Your task to perform on an android device: Play the last video I watched on Youtube Image 0: 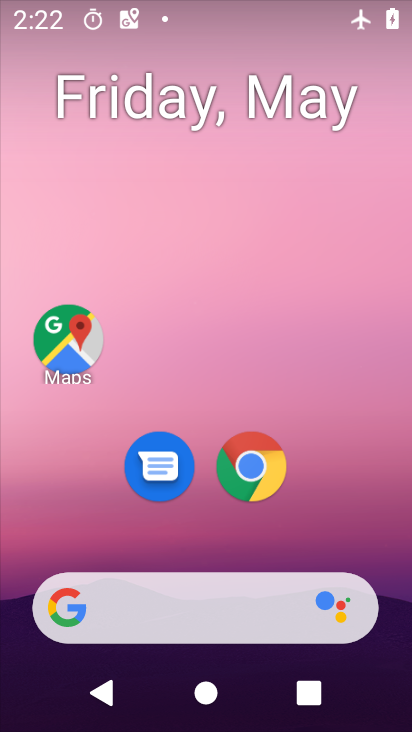
Step 0: drag from (330, 534) to (349, 58)
Your task to perform on an android device: Play the last video I watched on Youtube Image 1: 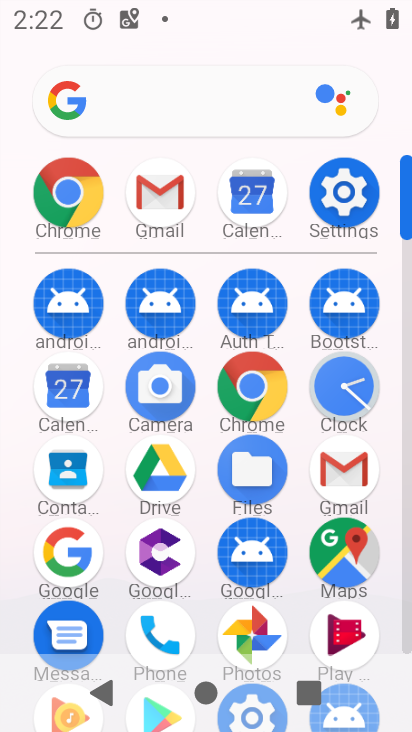
Step 1: drag from (377, 668) to (375, 230)
Your task to perform on an android device: Play the last video I watched on Youtube Image 2: 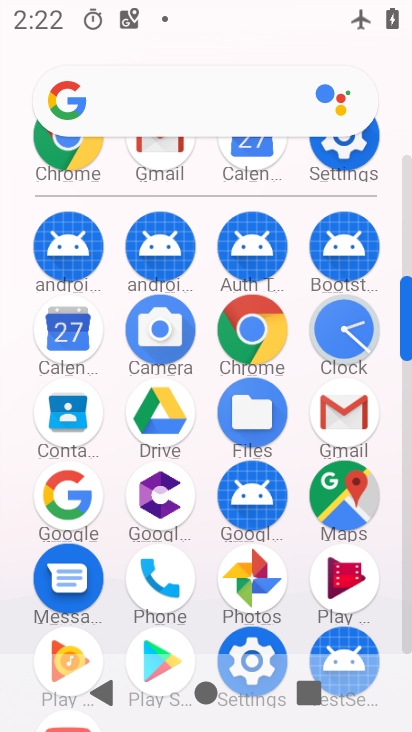
Step 2: drag from (392, 513) to (411, 136)
Your task to perform on an android device: Play the last video I watched on Youtube Image 3: 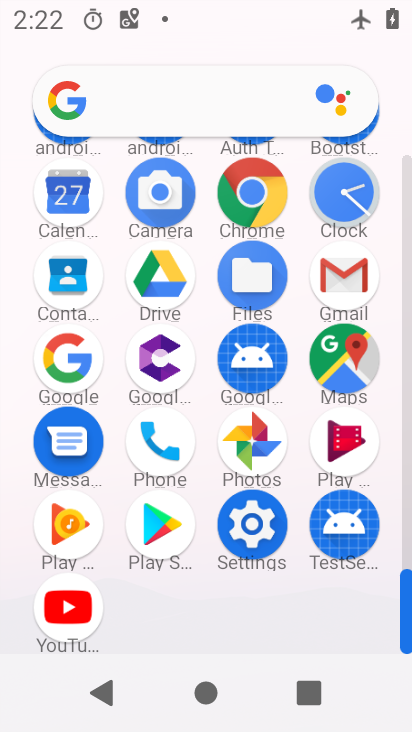
Step 3: click (61, 593)
Your task to perform on an android device: Play the last video I watched on Youtube Image 4: 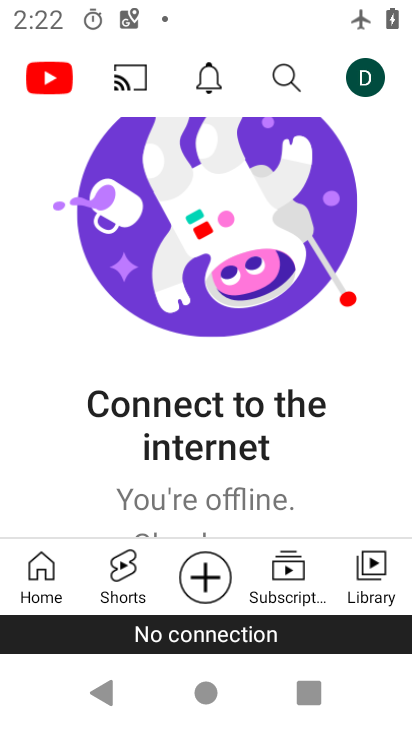
Step 4: click (282, 90)
Your task to perform on an android device: Play the last video I watched on Youtube Image 5: 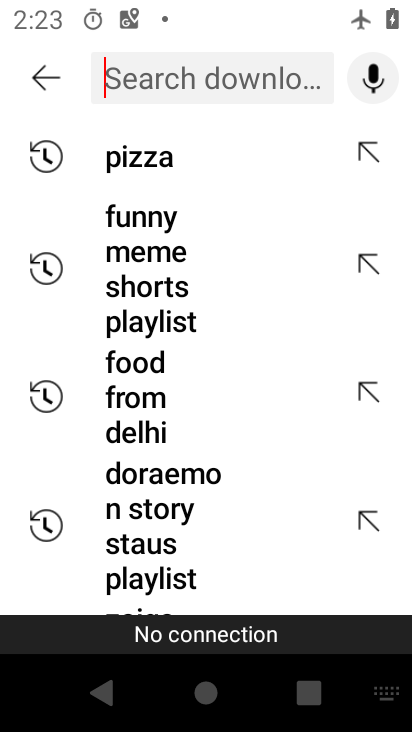
Step 5: task complete